Your task to perform on an android device: delete location history Image 0: 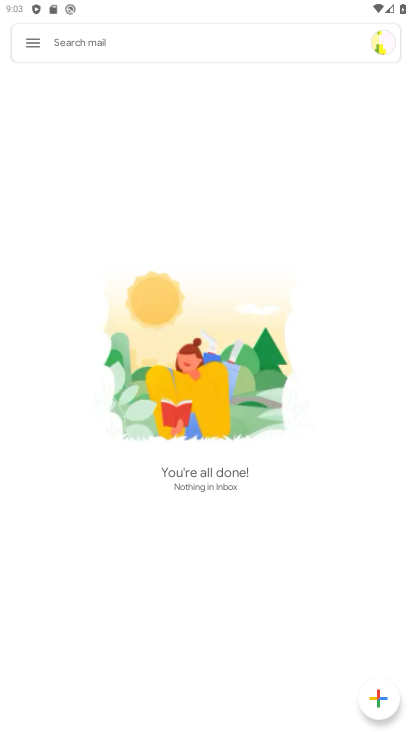
Step 0: press home button
Your task to perform on an android device: delete location history Image 1: 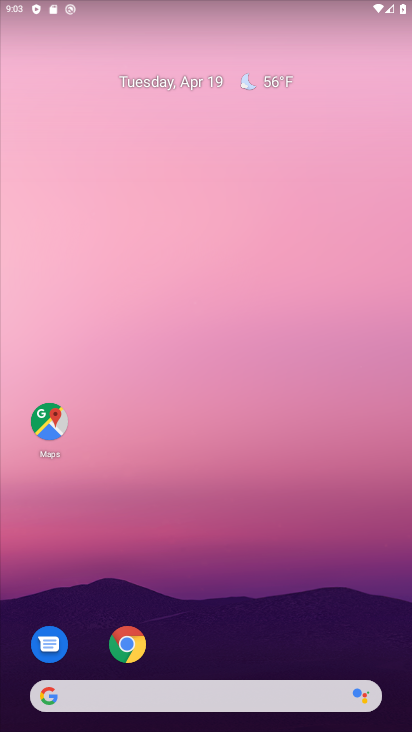
Step 1: drag from (216, 629) to (209, 519)
Your task to perform on an android device: delete location history Image 2: 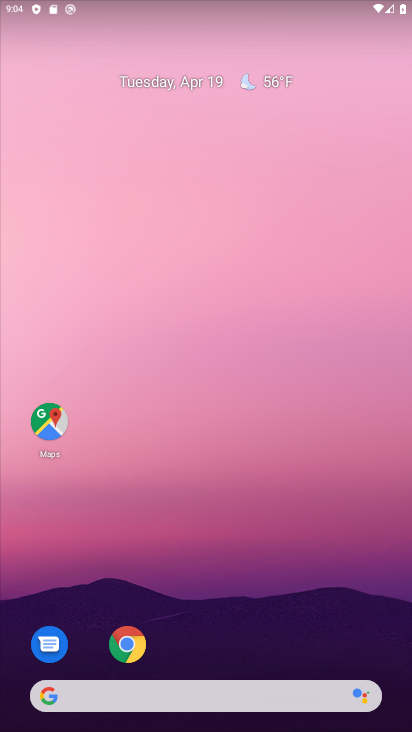
Step 2: click (48, 417)
Your task to perform on an android device: delete location history Image 3: 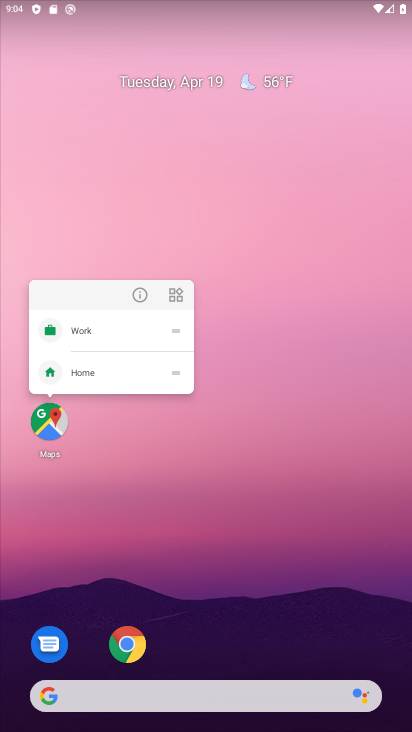
Step 3: click (48, 438)
Your task to perform on an android device: delete location history Image 4: 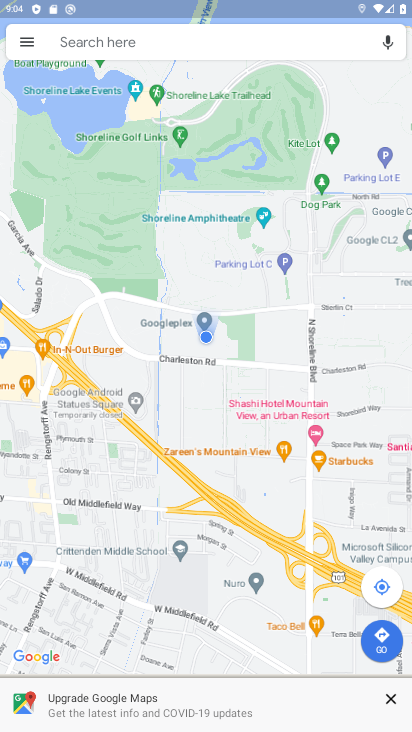
Step 4: click (25, 40)
Your task to perform on an android device: delete location history Image 5: 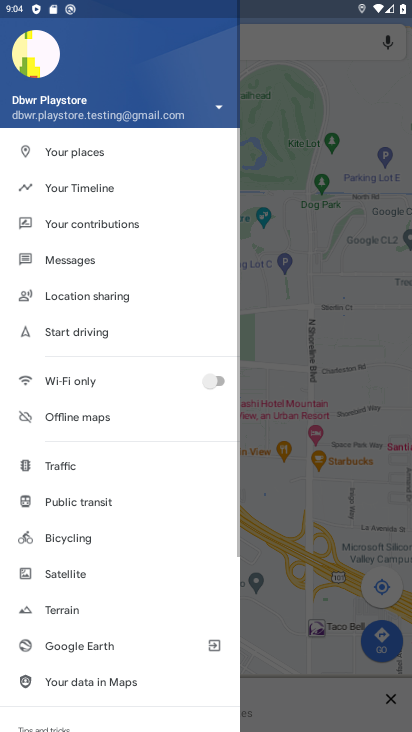
Step 5: click (103, 186)
Your task to perform on an android device: delete location history Image 6: 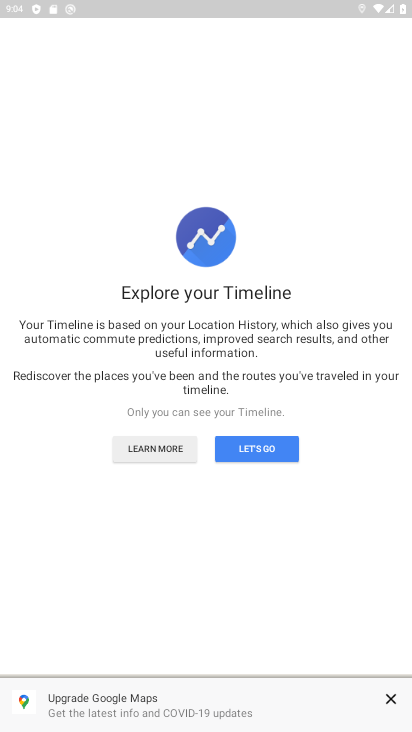
Step 6: click (252, 447)
Your task to perform on an android device: delete location history Image 7: 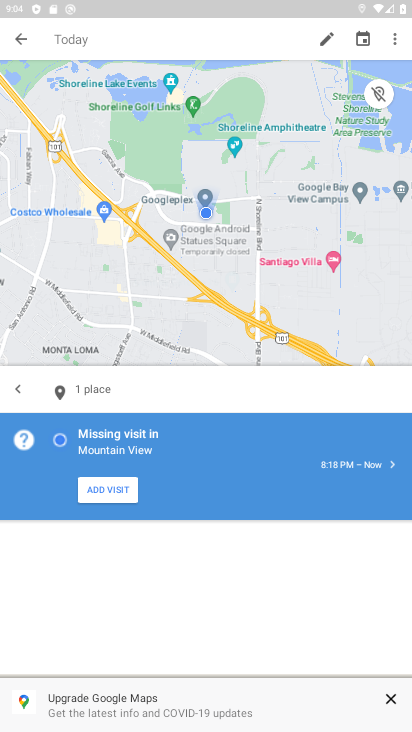
Step 7: click (390, 39)
Your task to perform on an android device: delete location history Image 8: 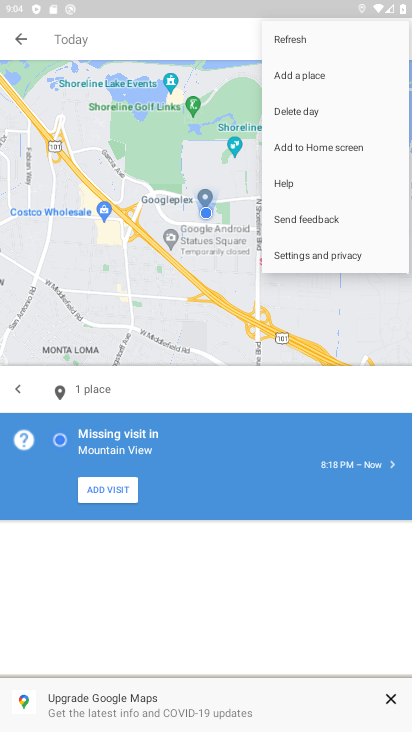
Step 8: click (309, 258)
Your task to perform on an android device: delete location history Image 9: 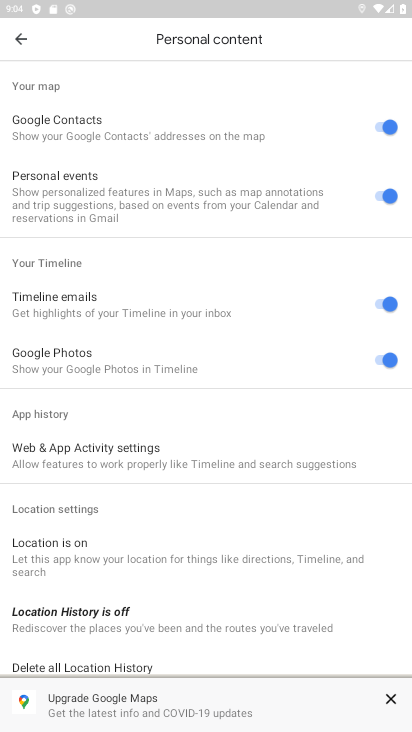
Step 9: drag from (187, 600) to (190, 309)
Your task to perform on an android device: delete location history Image 10: 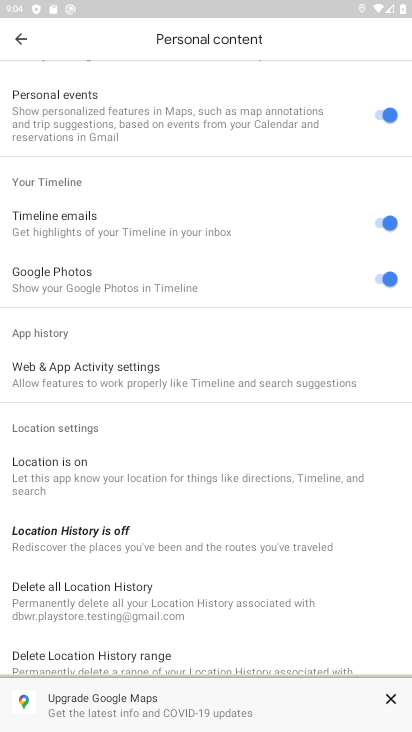
Step 10: click (159, 588)
Your task to perform on an android device: delete location history Image 11: 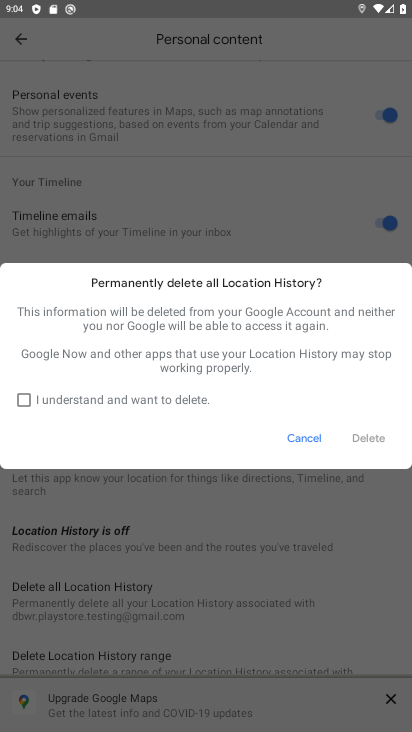
Step 11: click (149, 394)
Your task to perform on an android device: delete location history Image 12: 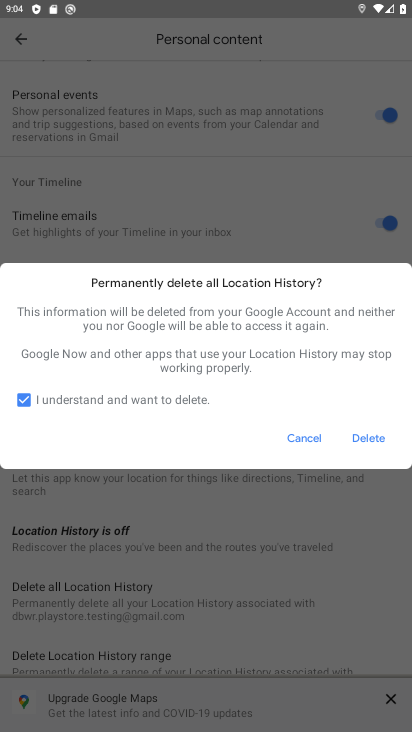
Step 12: click (361, 432)
Your task to perform on an android device: delete location history Image 13: 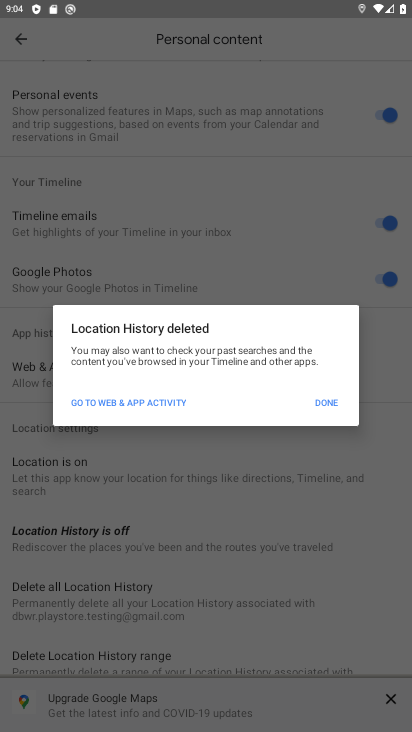
Step 13: click (323, 401)
Your task to perform on an android device: delete location history Image 14: 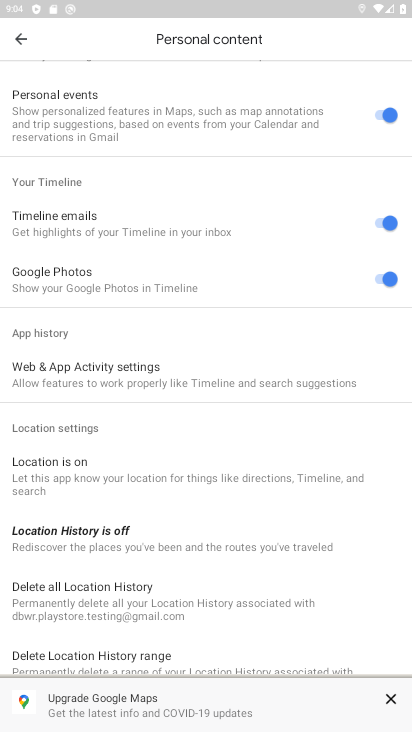
Step 14: task complete